Your task to perform on an android device: See recent photos Image 0: 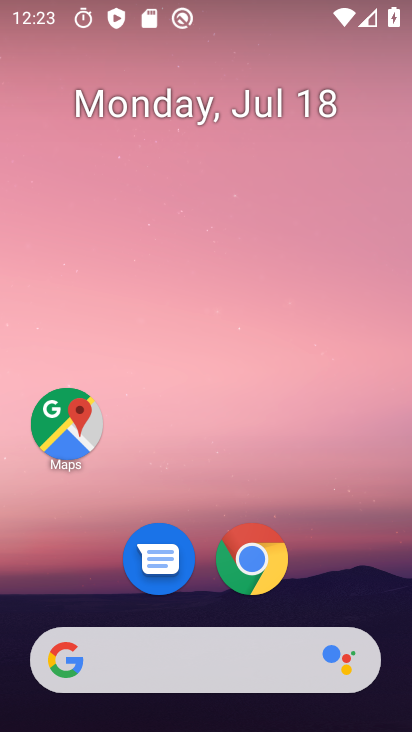
Step 0: drag from (105, 541) to (178, 27)
Your task to perform on an android device: See recent photos Image 1: 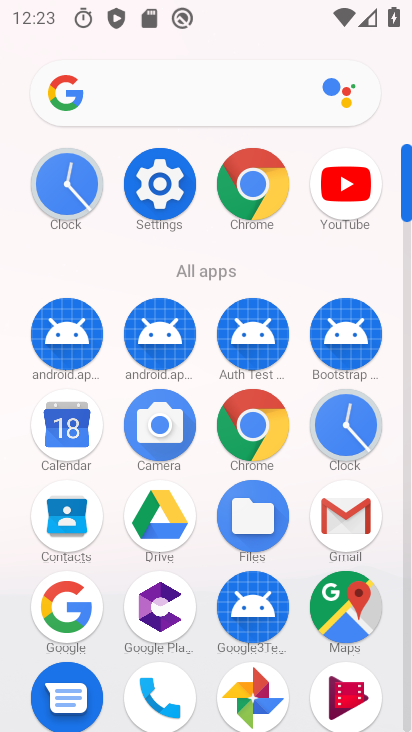
Step 1: click (266, 698)
Your task to perform on an android device: See recent photos Image 2: 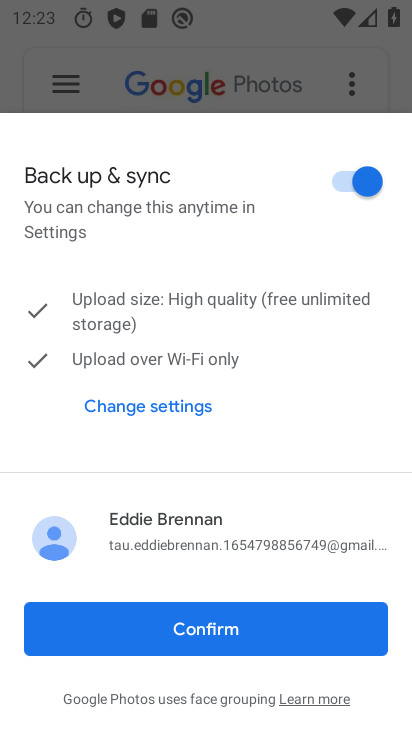
Step 2: click (197, 627)
Your task to perform on an android device: See recent photos Image 3: 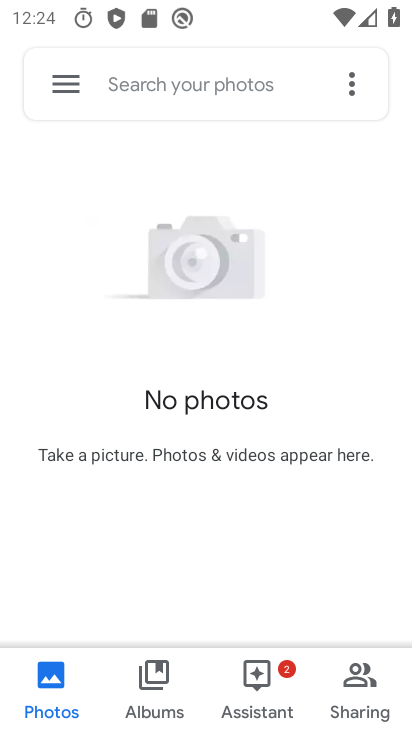
Step 3: click (51, 698)
Your task to perform on an android device: See recent photos Image 4: 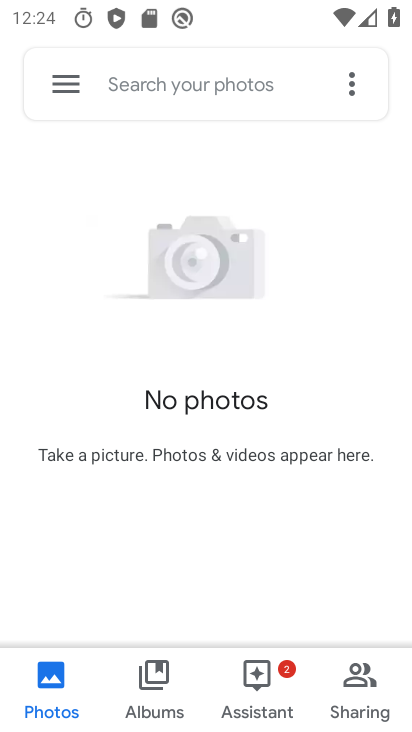
Step 4: task complete